Your task to perform on an android device: turn on airplane mode Image 0: 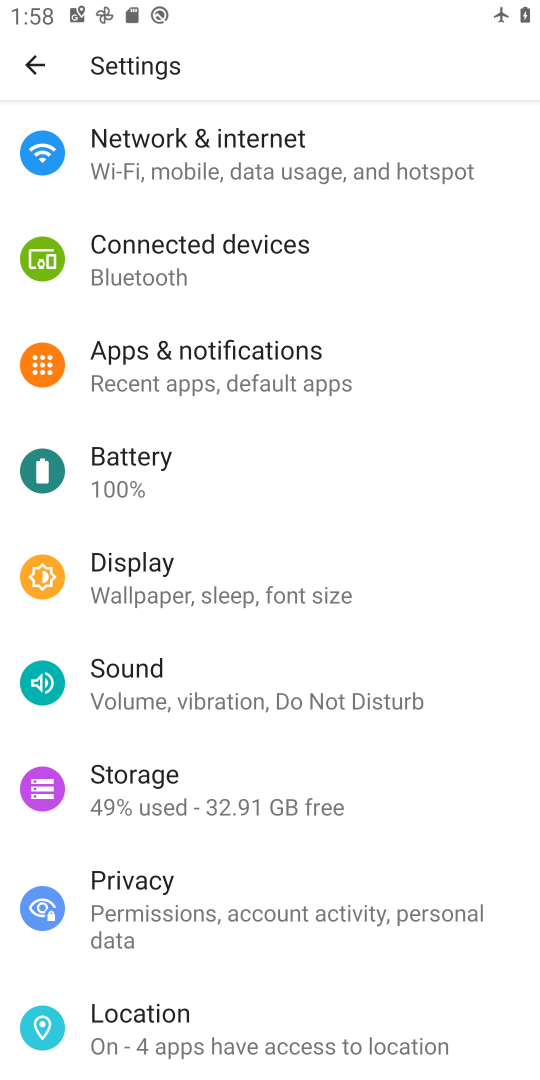
Step 0: press home button
Your task to perform on an android device: turn on airplane mode Image 1: 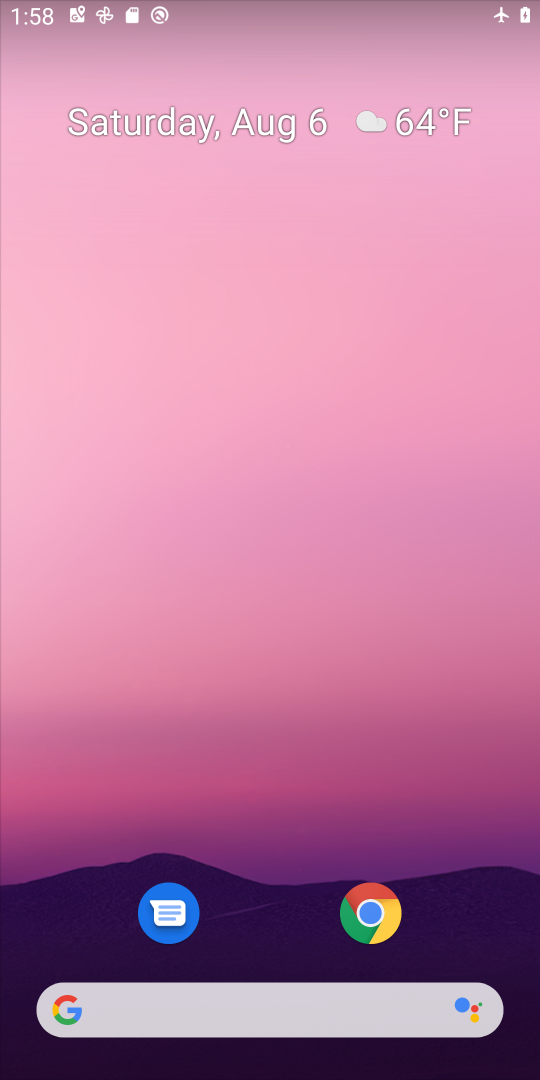
Step 1: drag from (450, 936) to (463, 382)
Your task to perform on an android device: turn on airplane mode Image 2: 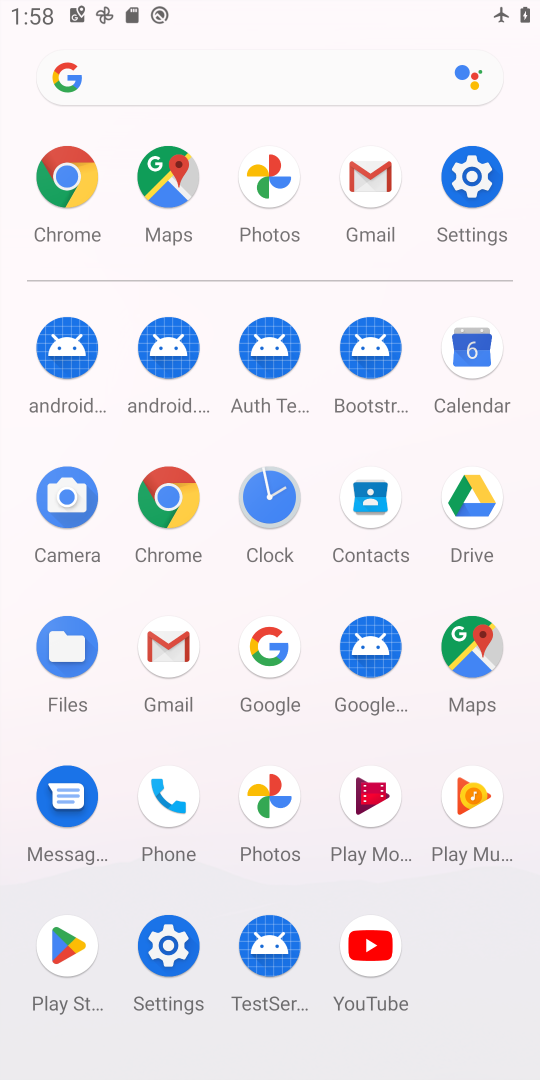
Step 2: click (471, 176)
Your task to perform on an android device: turn on airplane mode Image 3: 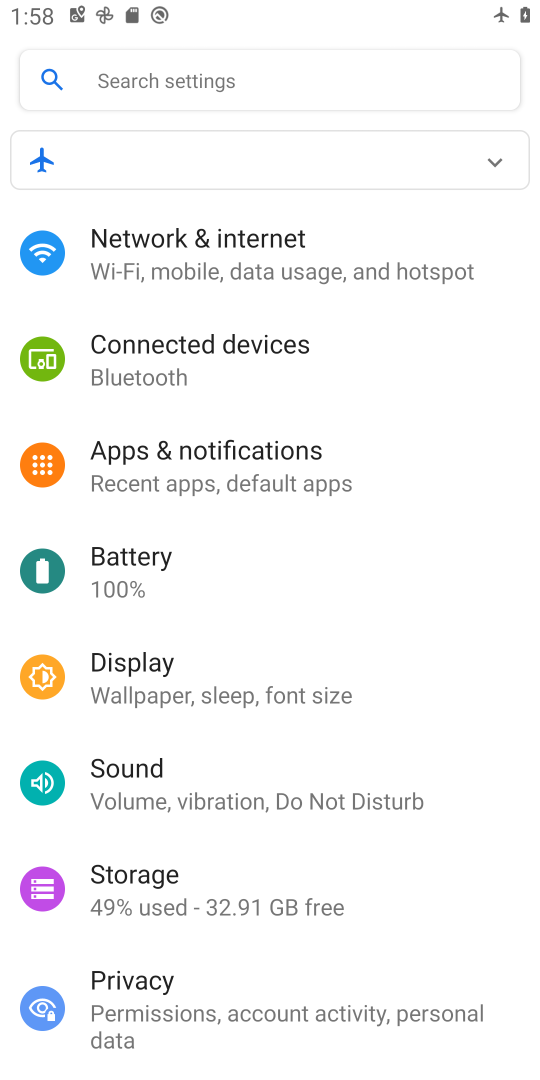
Step 3: drag from (474, 679) to (473, 563)
Your task to perform on an android device: turn on airplane mode Image 4: 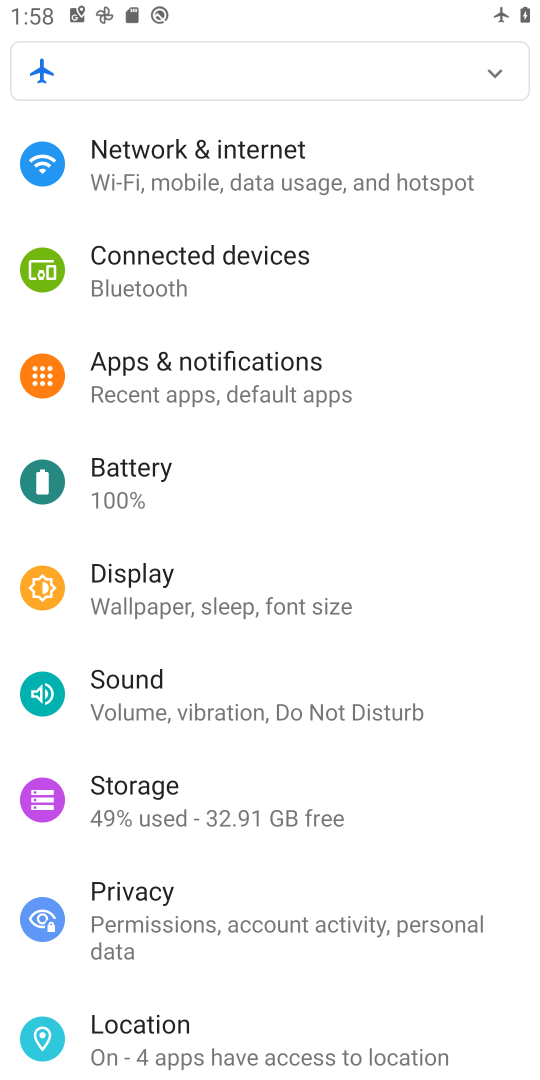
Step 4: drag from (466, 761) to (487, 616)
Your task to perform on an android device: turn on airplane mode Image 5: 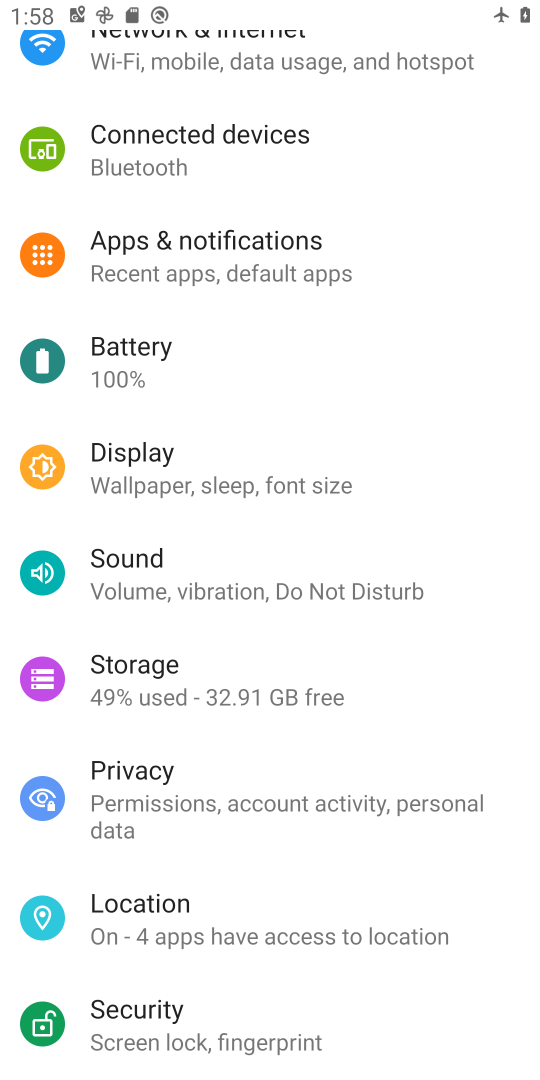
Step 5: drag from (475, 738) to (480, 575)
Your task to perform on an android device: turn on airplane mode Image 6: 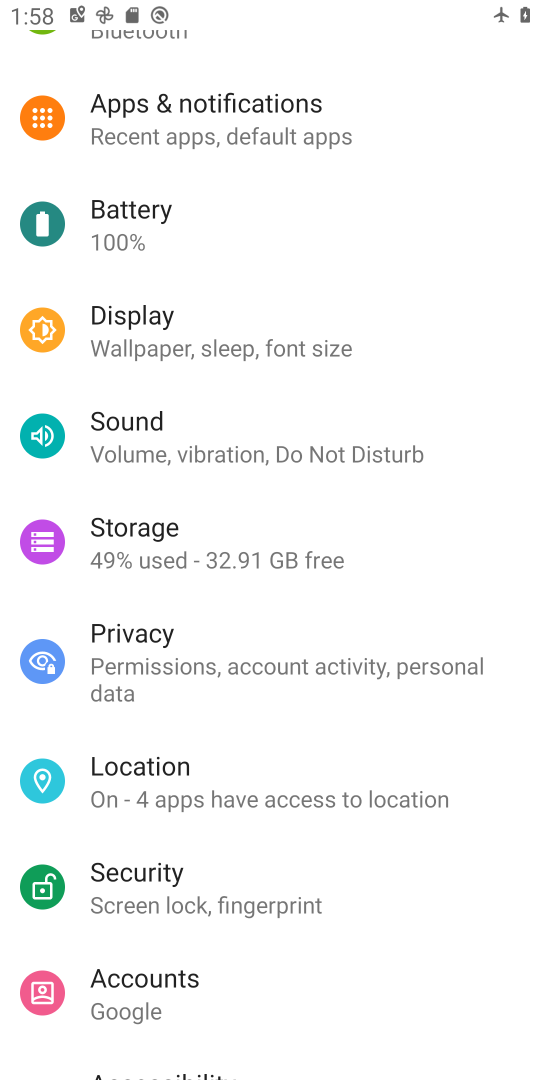
Step 6: drag from (484, 781) to (479, 589)
Your task to perform on an android device: turn on airplane mode Image 7: 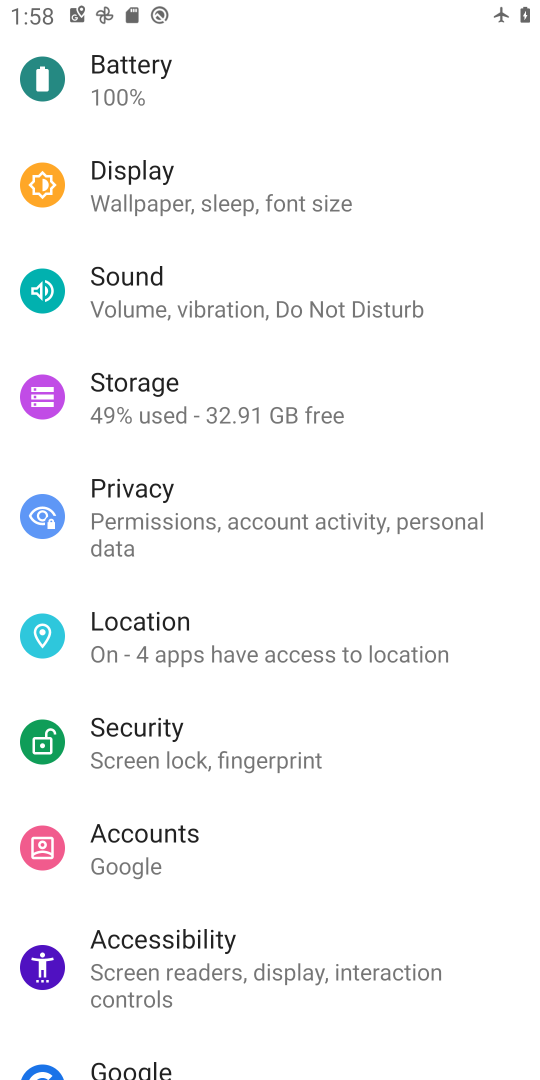
Step 7: drag from (481, 802) to (478, 632)
Your task to perform on an android device: turn on airplane mode Image 8: 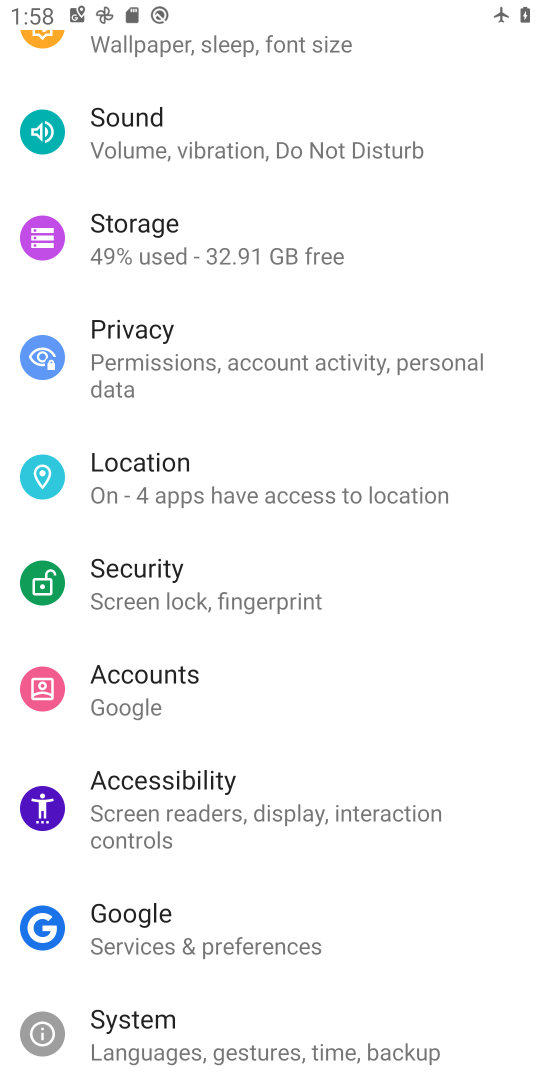
Step 8: drag from (473, 860) to (475, 682)
Your task to perform on an android device: turn on airplane mode Image 9: 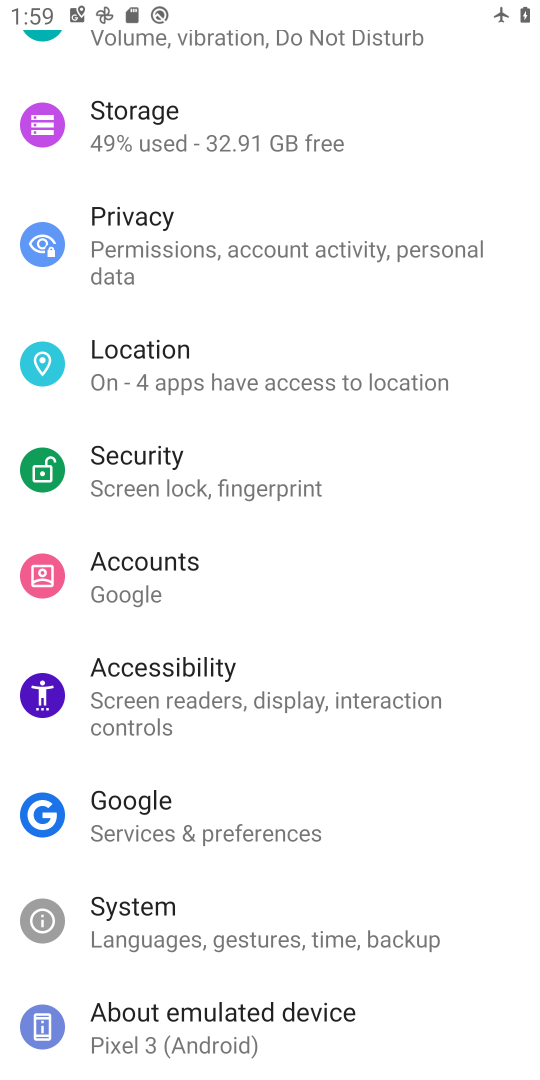
Step 9: drag from (466, 496) to (471, 653)
Your task to perform on an android device: turn on airplane mode Image 10: 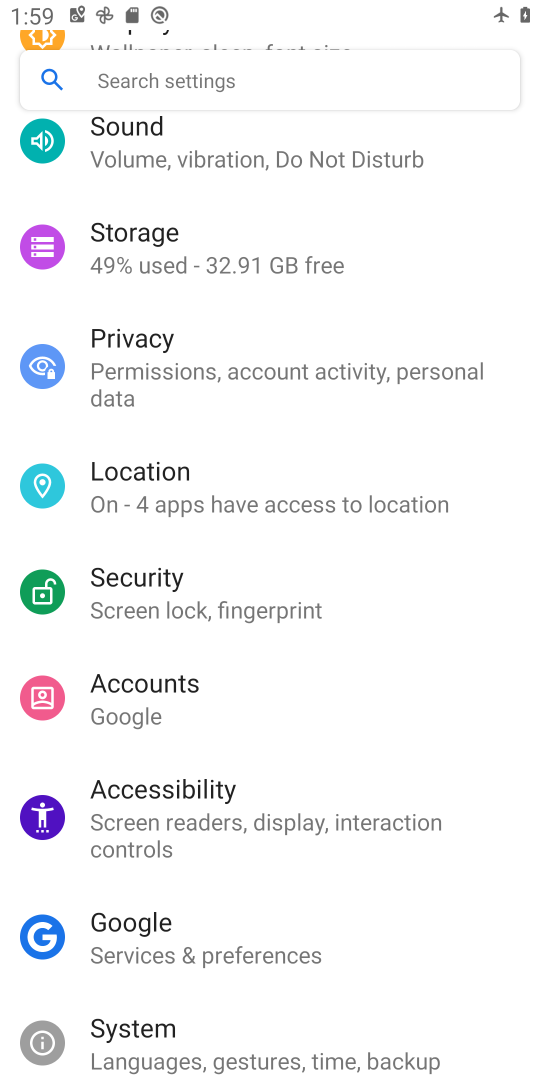
Step 10: drag from (485, 437) to (494, 598)
Your task to perform on an android device: turn on airplane mode Image 11: 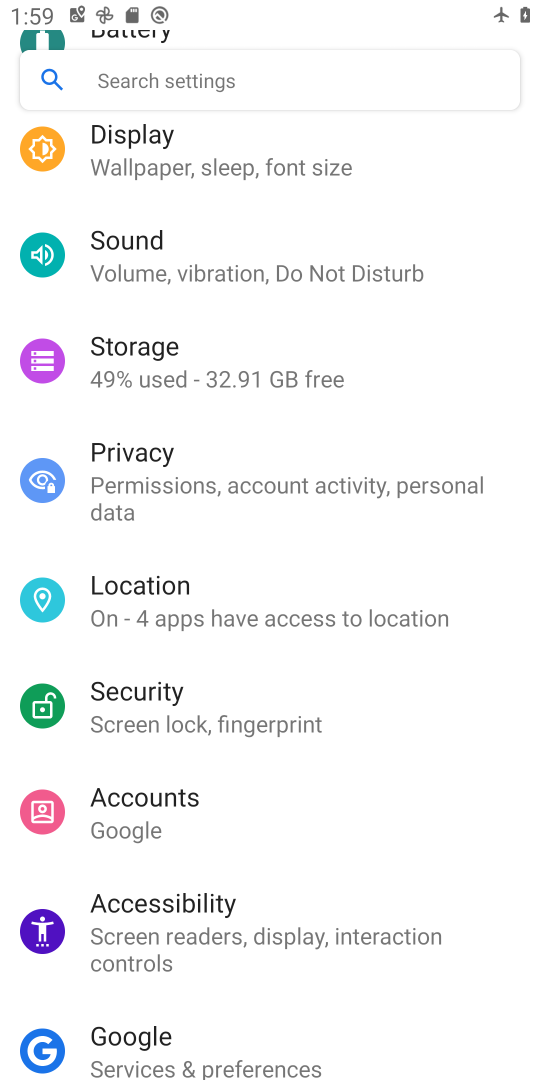
Step 11: drag from (473, 345) to (485, 531)
Your task to perform on an android device: turn on airplane mode Image 12: 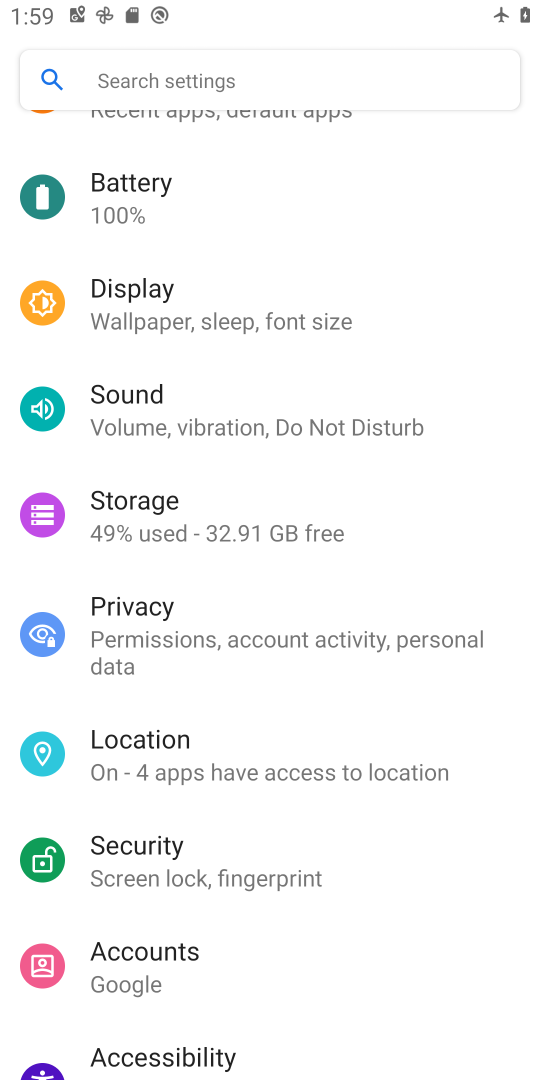
Step 12: drag from (487, 338) to (491, 459)
Your task to perform on an android device: turn on airplane mode Image 13: 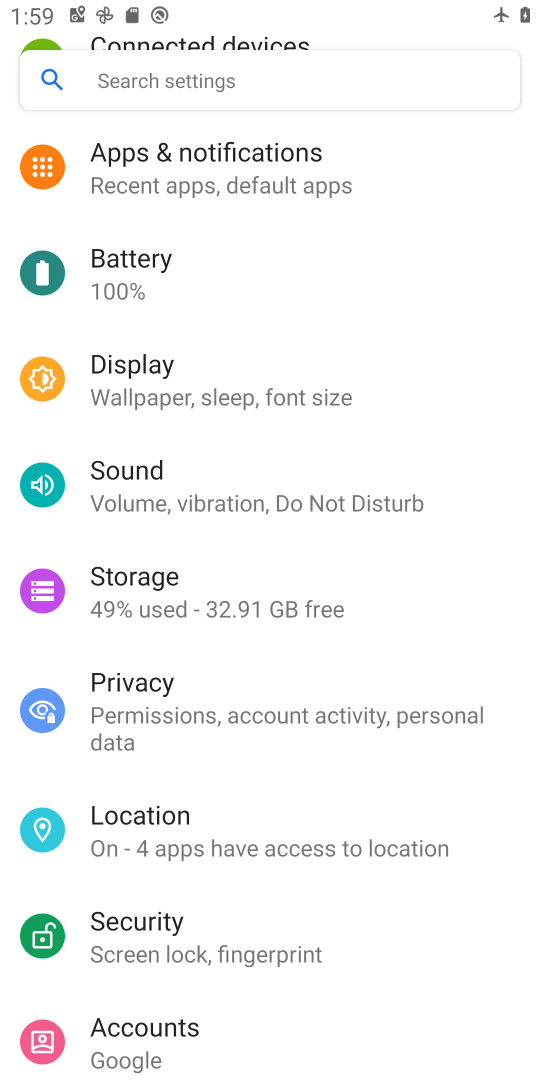
Step 13: drag from (482, 278) to (478, 440)
Your task to perform on an android device: turn on airplane mode Image 14: 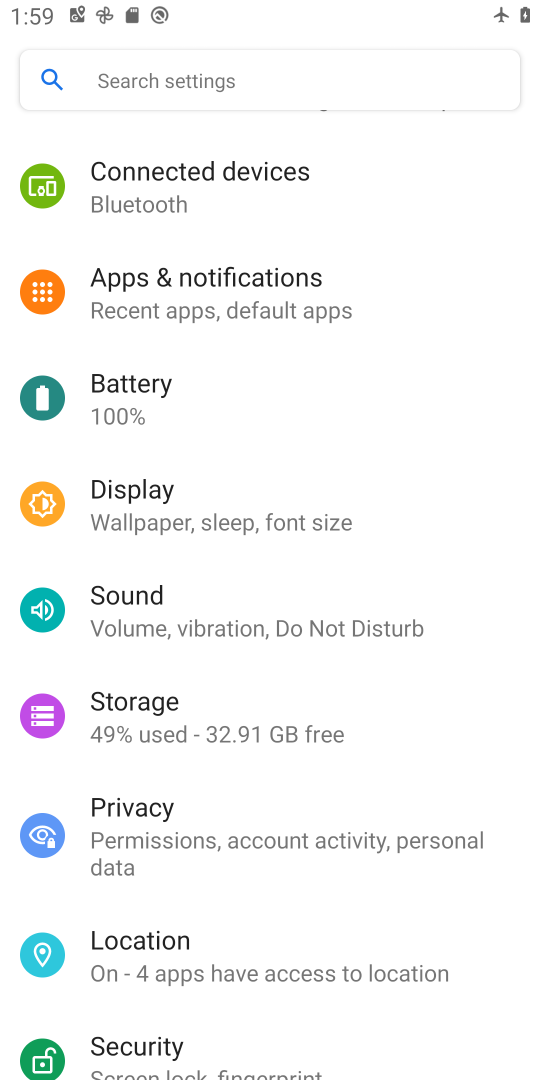
Step 14: drag from (456, 277) to (464, 439)
Your task to perform on an android device: turn on airplane mode Image 15: 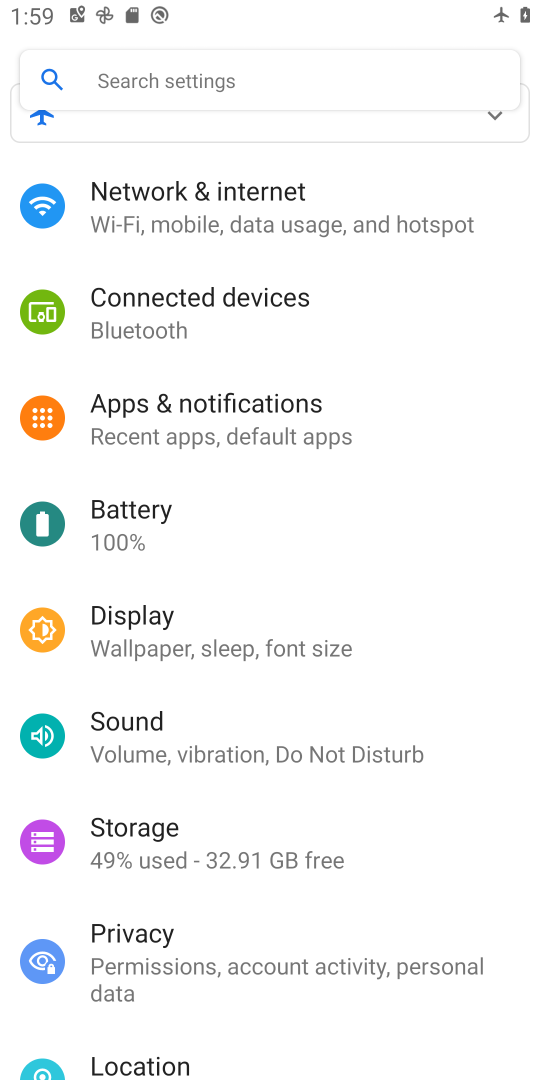
Step 15: drag from (467, 365) to (485, 547)
Your task to perform on an android device: turn on airplane mode Image 16: 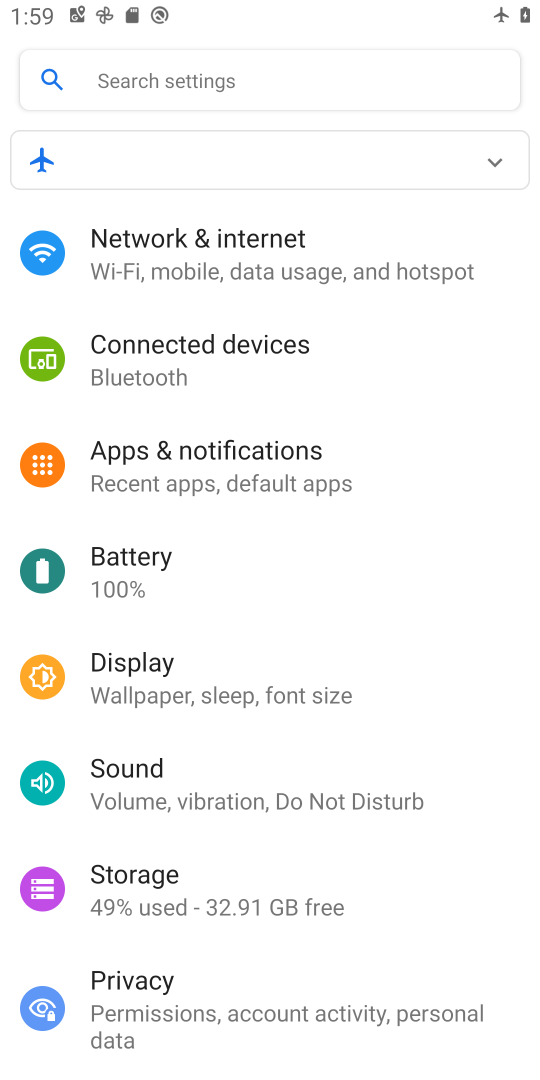
Step 16: click (403, 255)
Your task to perform on an android device: turn on airplane mode Image 17: 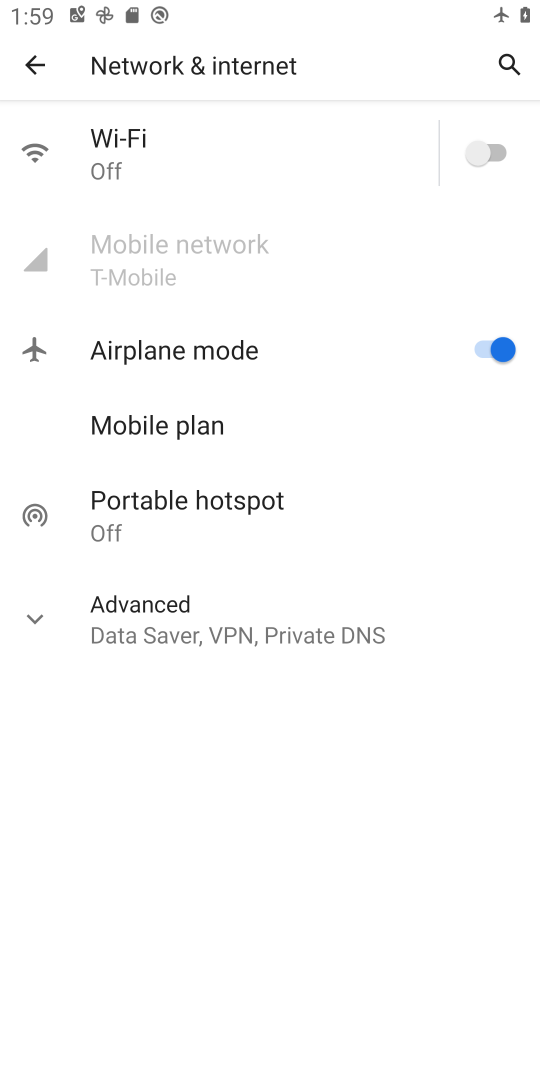
Step 17: task complete